Your task to perform on an android device: turn off location history Image 0: 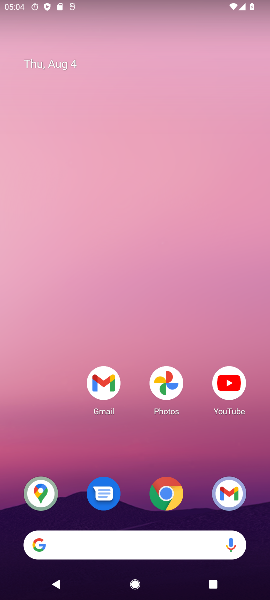
Step 0: click (161, 494)
Your task to perform on an android device: turn off location history Image 1: 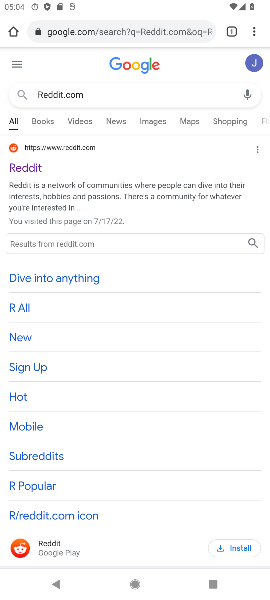
Step 1: press home button
Your task to perform on an android device: turn off location history Image 2: 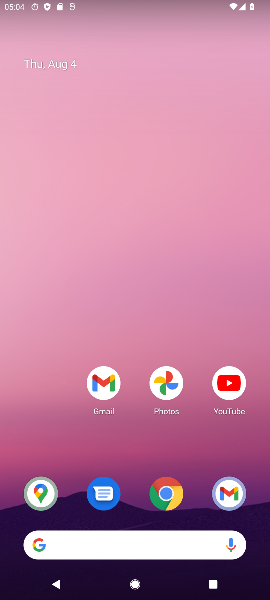
Step 2: drag from (94, 349) to (154, 77)
Your task to perform on an android device: turn off location history Image 3: 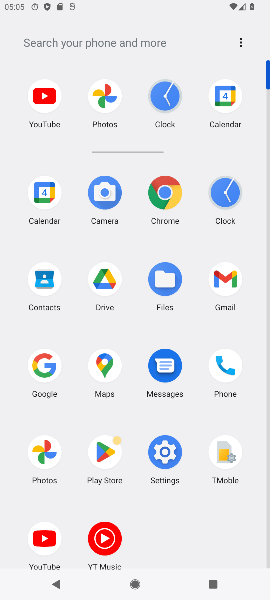
Step 3: click (175, 464)
Your task to perform on an android device: turn off location history Image 4: 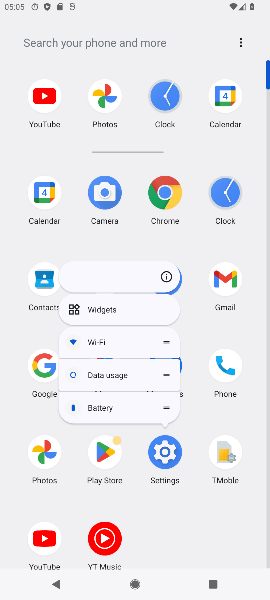
Step 4: task complete